Your task to perform on an android device: read, delete, or share a saved page in the chrome app Image 0: 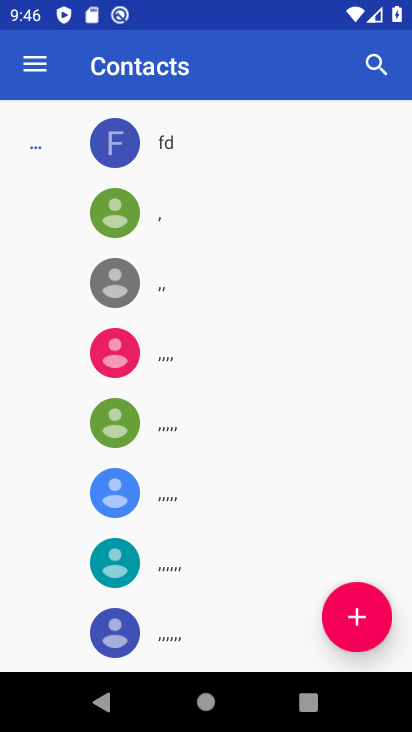
Step 0: press home button
Your task to perform on an android device: read, delete, or share a saved page in the chrome app Image 1: 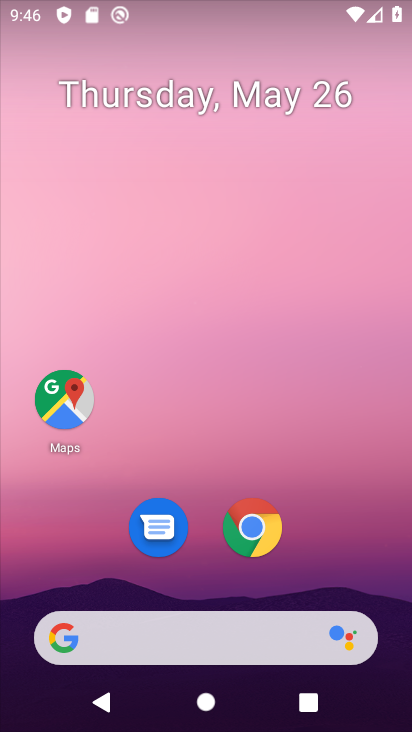
Step 1: click (257, 550)
Your task to perform on an android device: read, delete, or share a saved page in the chrome app Image 2: 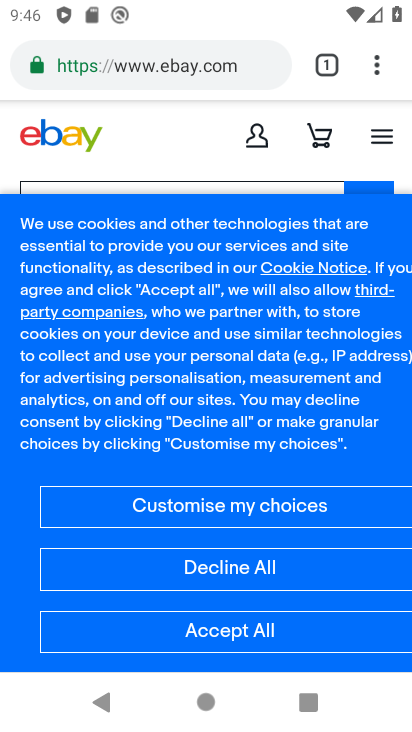
Step 2: click (328, 67)
Your task to perform on an android device: read, delete, or share a saved page in the chrome app Image 3: 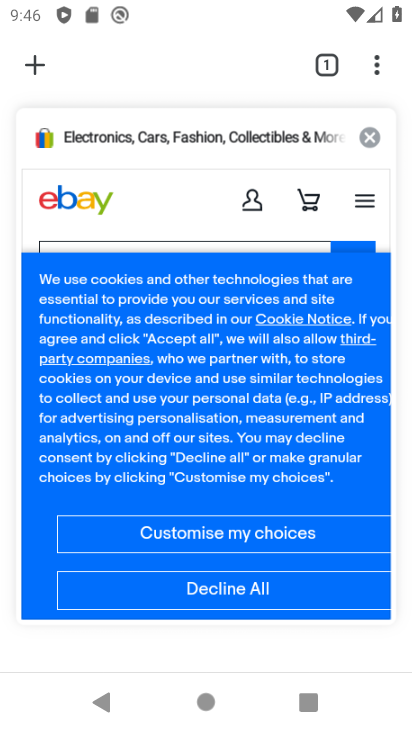
Step 3: click (363, 138)
Your task to perform on an android device: read, delete, or share a saved page in the chrome app Image 4: 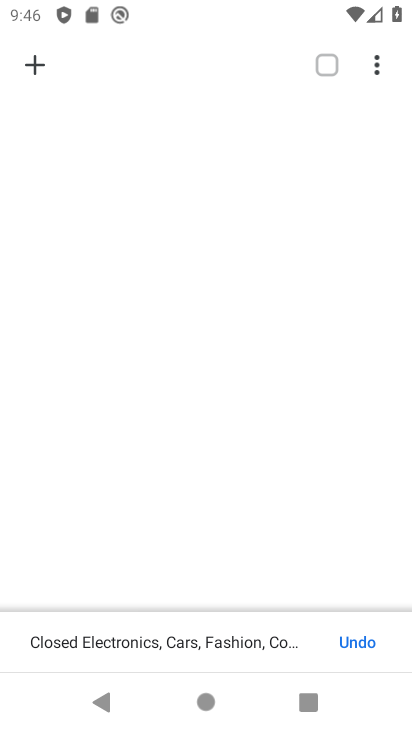
Step 4: click (34, 60)
Your task to perform on an android device: read, delete, or share a saved page in the chrome app Image 5: 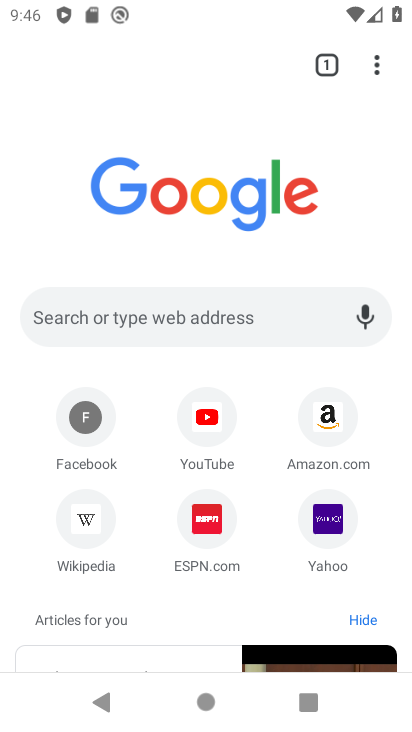
Step 5: click (342, 523)
Your task to perform on an android device: read, delete, or share a saved page in the chrome app Image 6: 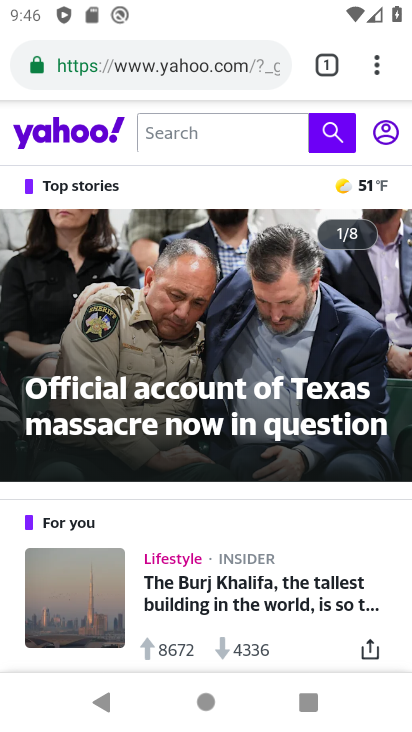
Step 6: drag from (255, 582) to (235, 269)
Your task to perform on an android device: read, delete, or share a saved page in the chrome app Image 7: 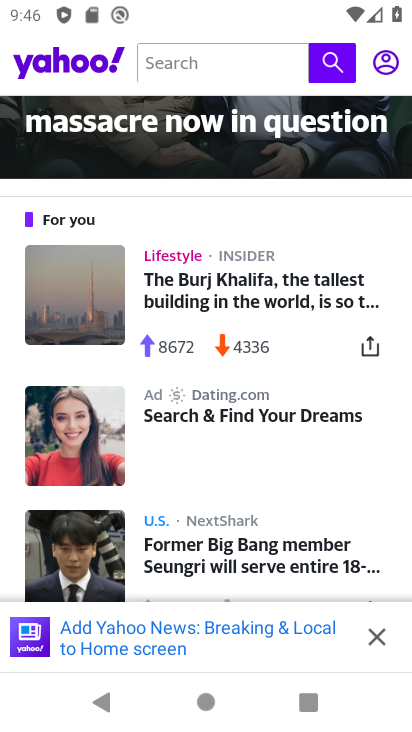
Step 7: drag from (249, 529) to (259, 208)
Your task to perform on an android device: read, delete, or share a saved page in the chrome app Image 8: 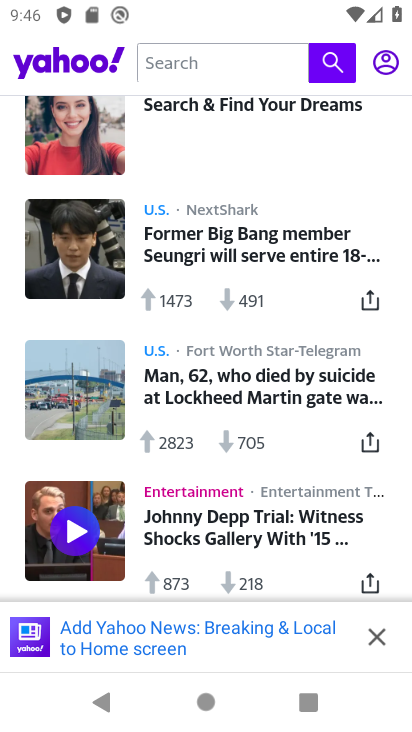
Step 8: drag from (234, 495) to (221, 253)
Your task to perform on an android device: read, delete, or share a saved page in the chrome app Image 9: 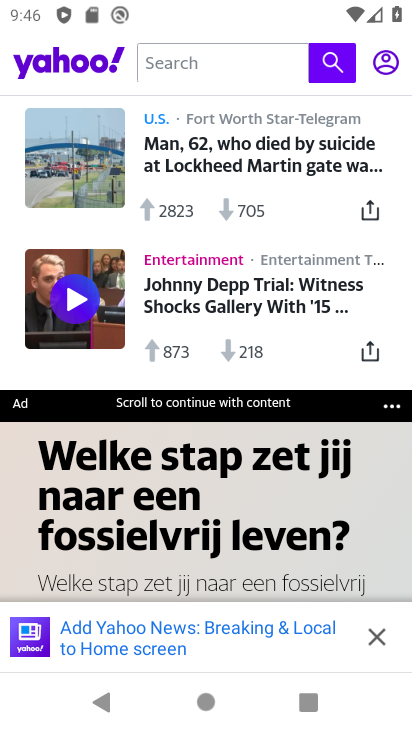
Step 9: click (383, 644)
Your task to perform on an android device: read, delete, or share a saved page in the chrome app Image 10: 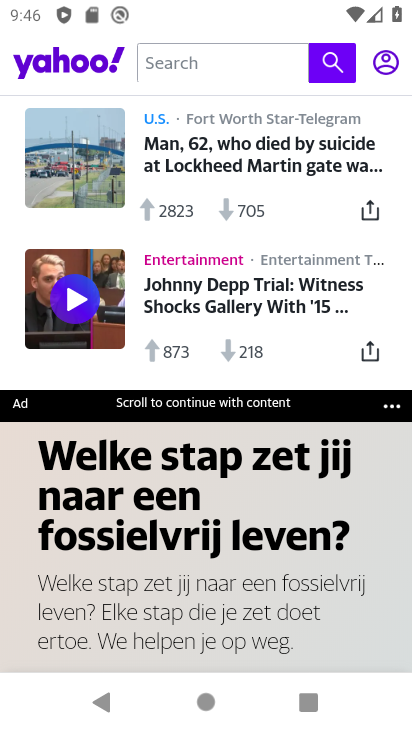
Step 10: task complete